Your task to perform on an android device: choose inbox layout in the gmail app Image 0: 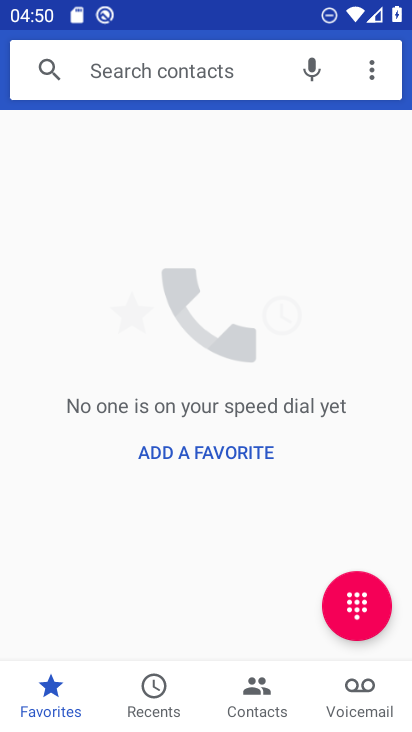
Step 0: press home button
Your task to perform on an android device: choose inbox layout in the gmail app Image 1: 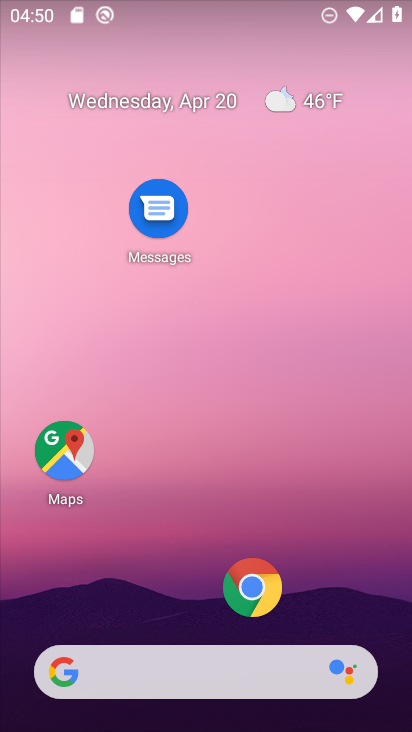
Step 1: drag from (178, 617) to (239, 135)
Your task to perform on an android device: choose inbox layout in the gmail app Image 2: 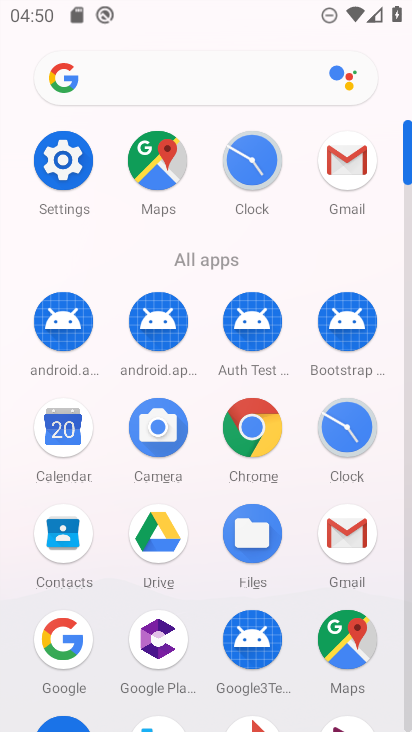
Step 2: click (347, 166)
Your task to perform on an android device: choose inbox layout in the gmail app Image 3: 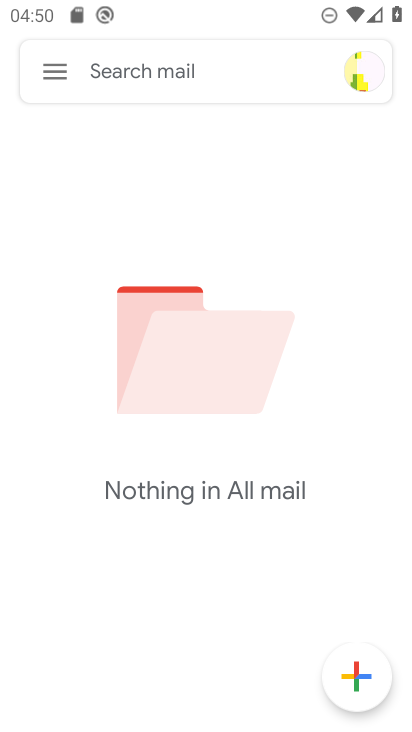
Step 3: click (232, 80)
Your task to perform on an android device: choose inbox layout in the gmail app Image 4: 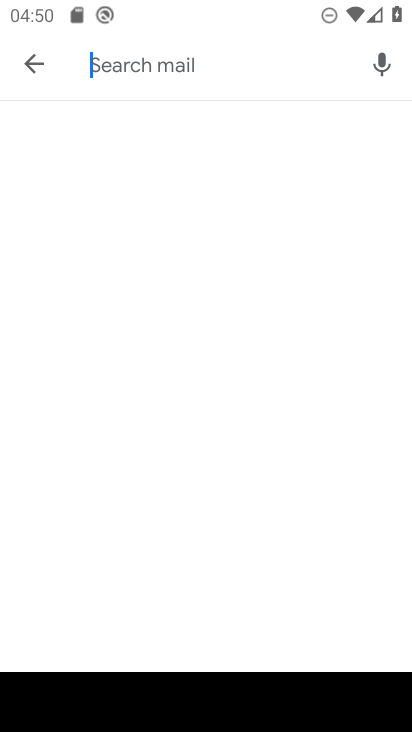
Step 4: click (19, 55)
Your task to perform on an android device: choose inbox layout in the gmail app Image 5: 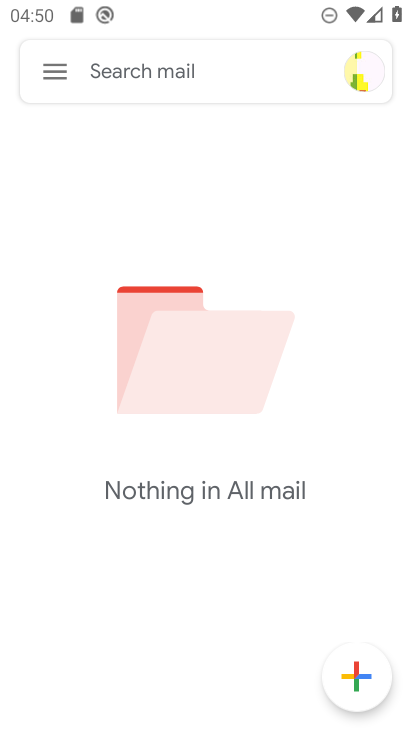
Step 5: click (36, 65)
Your task to perform on an android device: choose inbox layout in the gmail app Image 6: 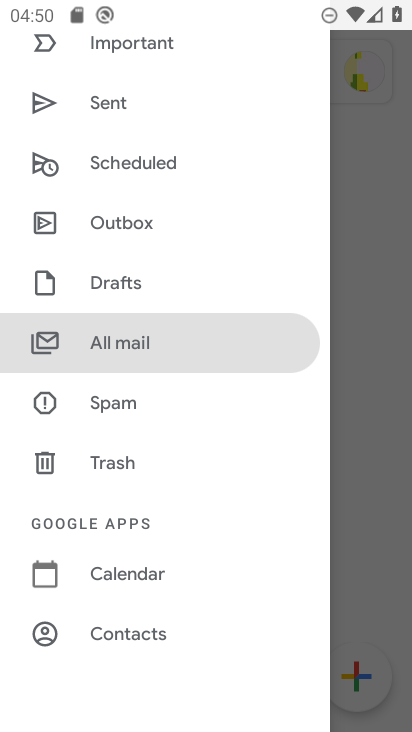
Step 6: drag from (160, 539) to (200, 185)
Your task to perform on an android device: choose inbox layout in the gmail app Image 7: 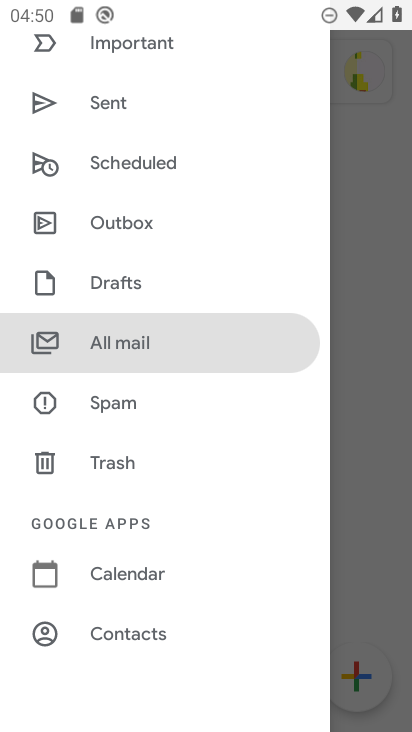
Step 7: drag from (221, 584) to (230, 249)
Your task to perform on an android device: choose inbox layout in the gmail app Image 8: 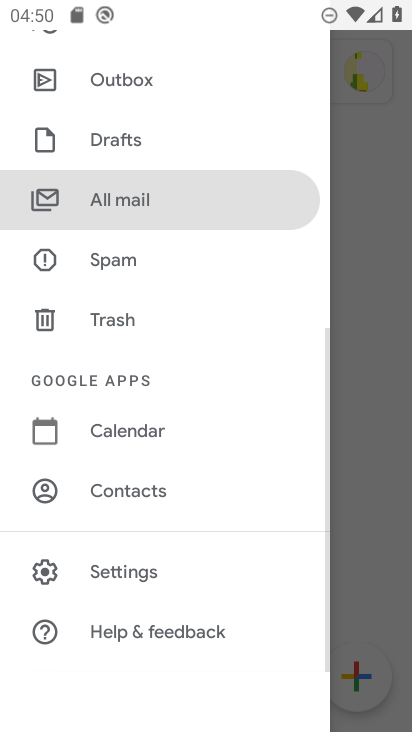
Step 8: click (175, 577)
Your task to perform on an android device: choose inbox layout in the gmail app Image 9: 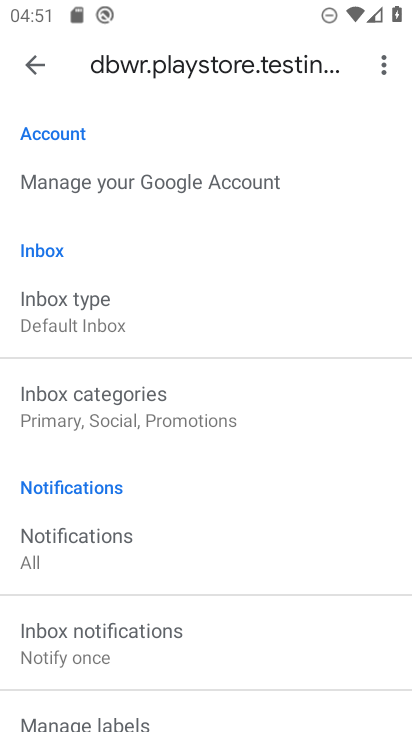
Step 9: click (130, 326)
Your task to perform on an android device: choose inbox layout in the gmail app Image 10: 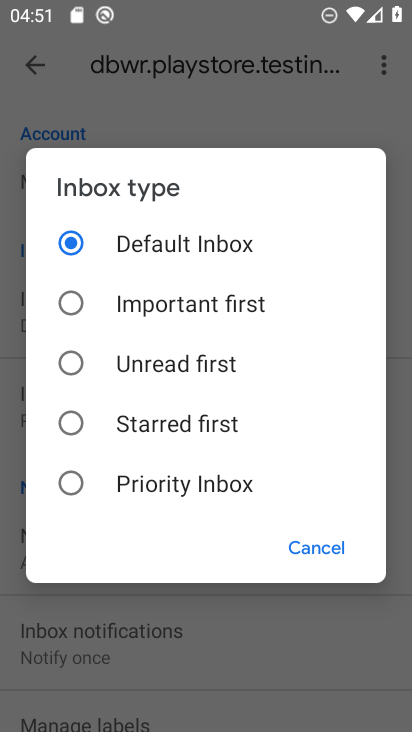
Step 10: click (133, 496)
Your task to perform on an android device: choose inbox layout in the gmail app Image 11: 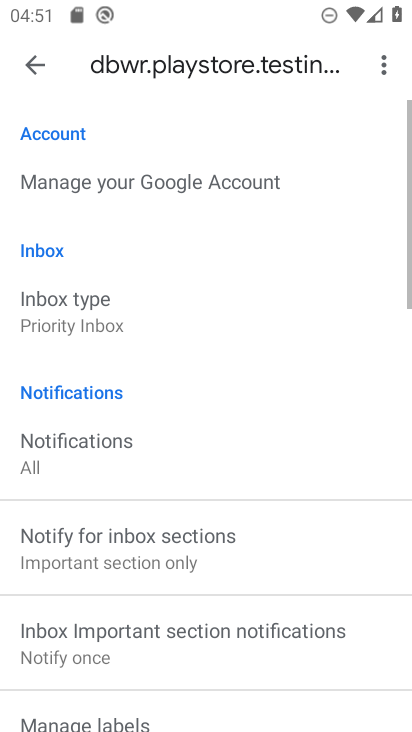
Step 11: task complete